Your task to perform on an android device: check out phone information Image 0: 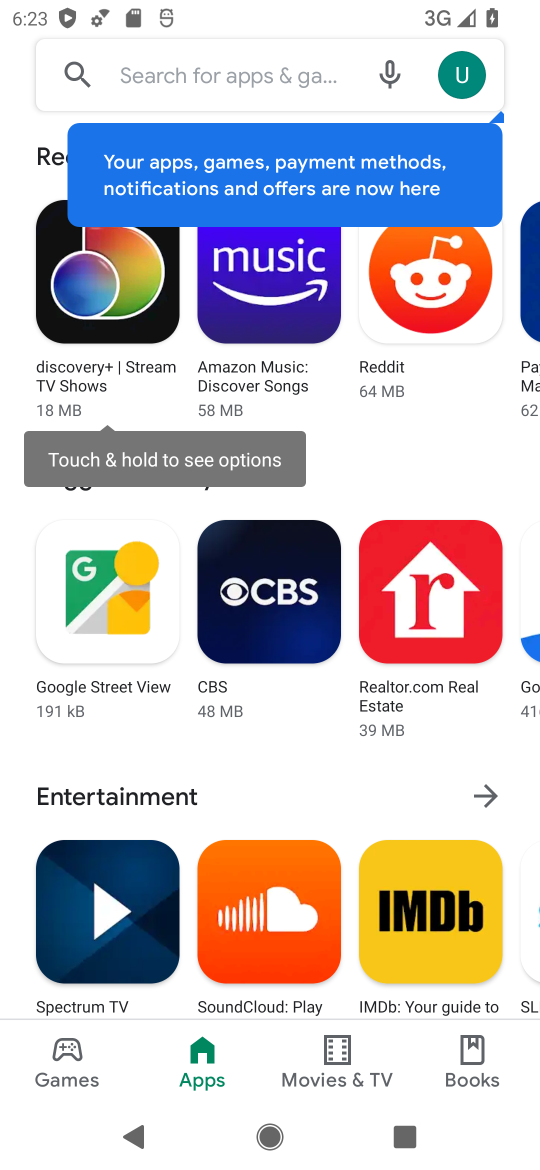
Step 0: press home button
Your task to perform on an android device: check out phone information Image 1: 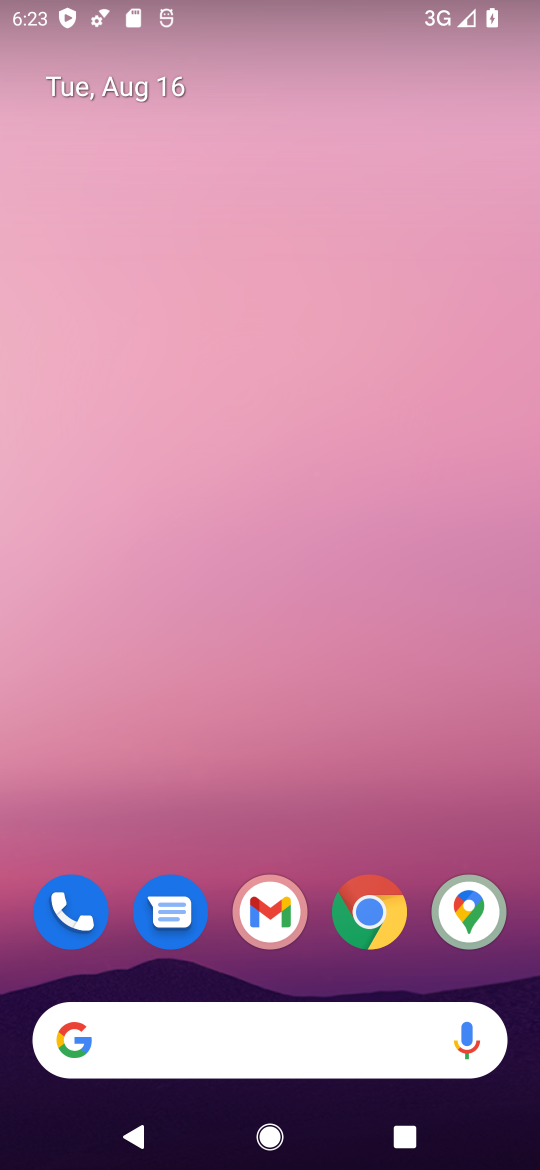
Step 1: drag from (421, 971) to (382, 132)
Your task to perform on an android device: check out phone information Image 2: 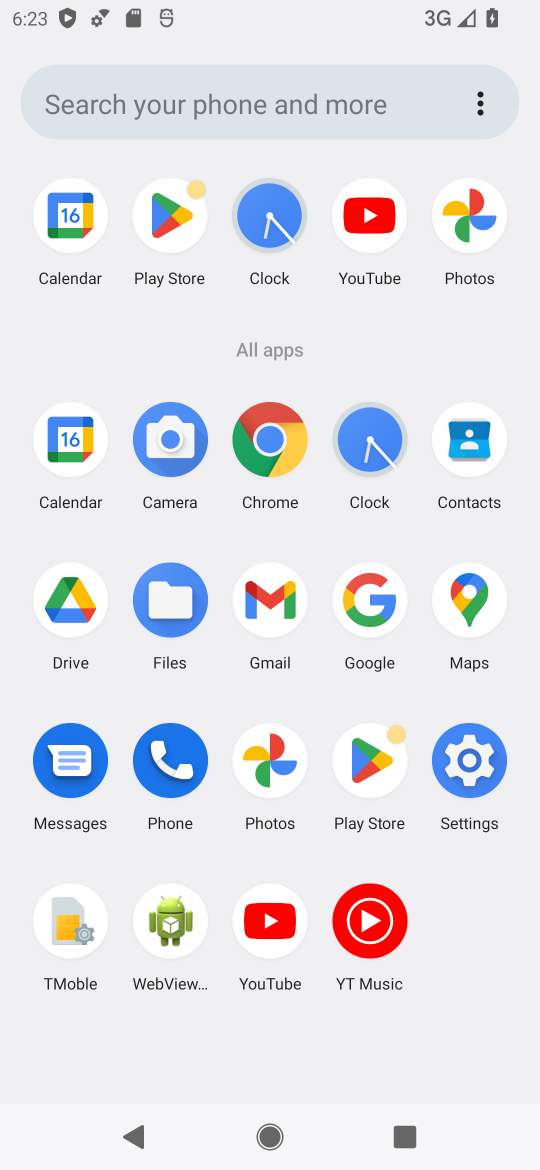
Step 2: click (467, 761)
Your task to perform on an android device: check out phone information Image 3: 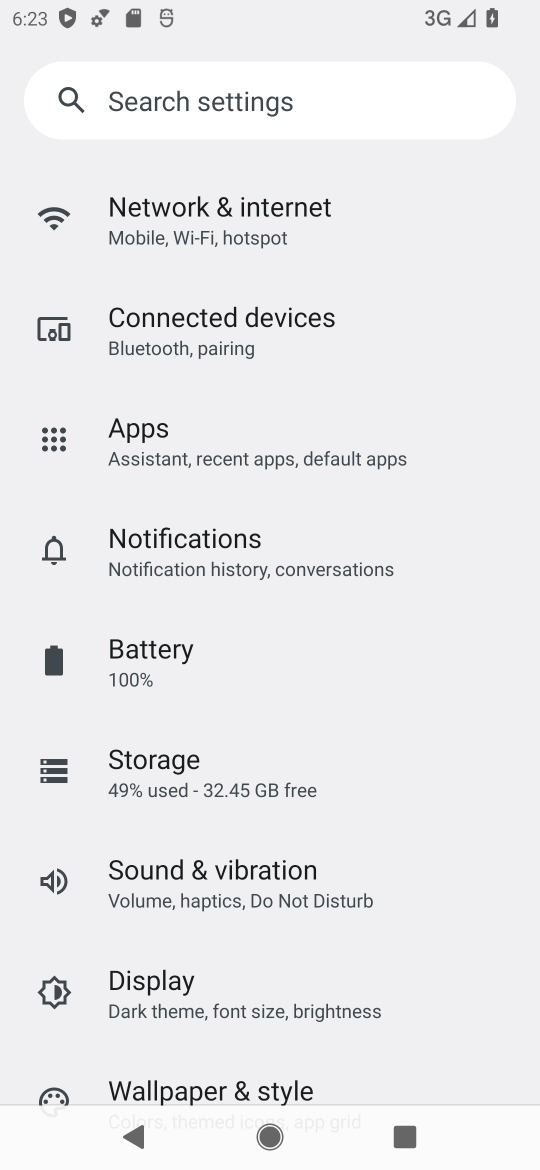
Step 3: drag from (398, 436) to (428, 694)
Your task to perform on an android device: check out phone information Image 4: 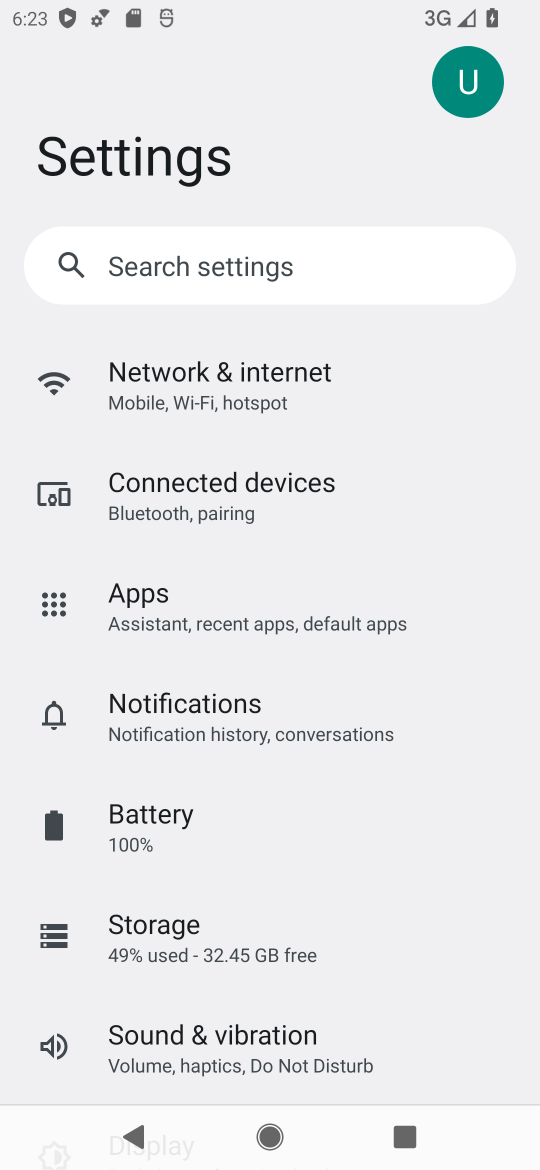
Step 4: drag from (424, 934) to (392, 326)
Your task to perform on an android device: check out phone information Image 5: 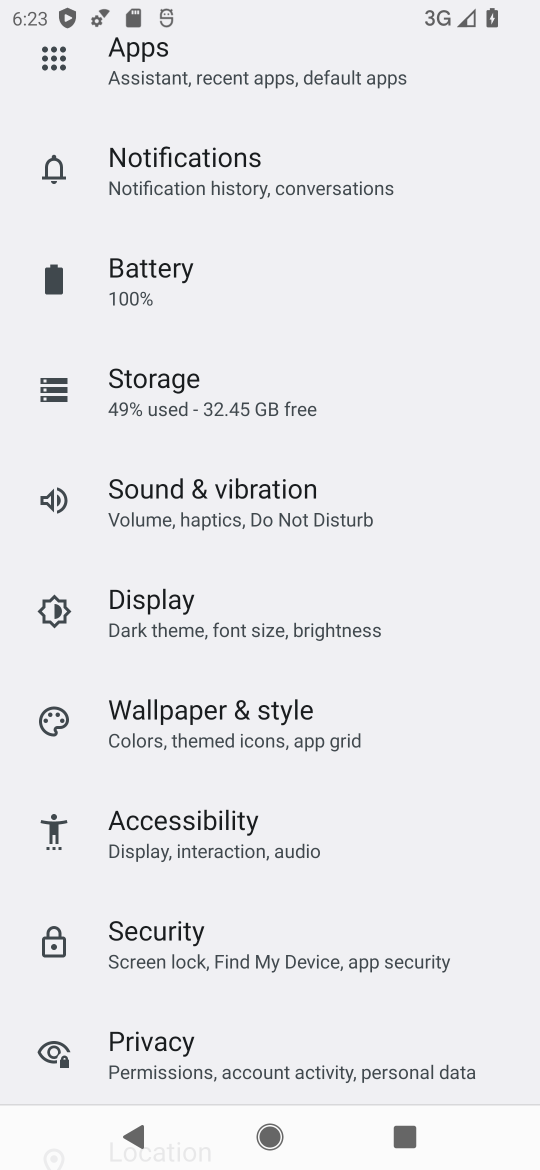
Step 5: drag from (411, 911) to (417, 285)
Your task to perform on an android device: check out phone information Image 6: 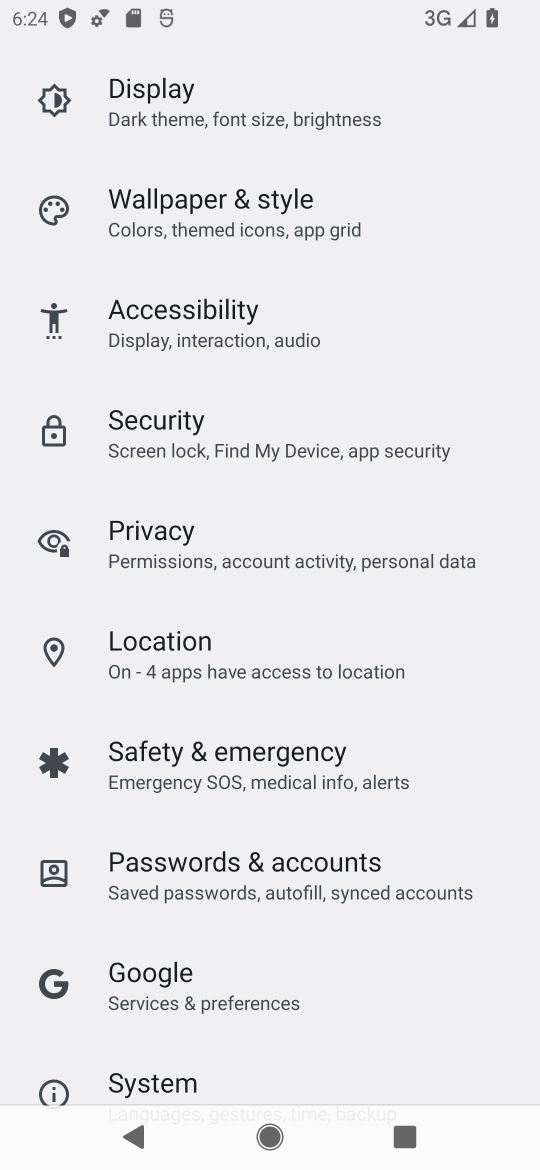
Step 6: drag from (457, 895) to (430, 431)
Your task to perform on an android device: check out phone information Image 7: 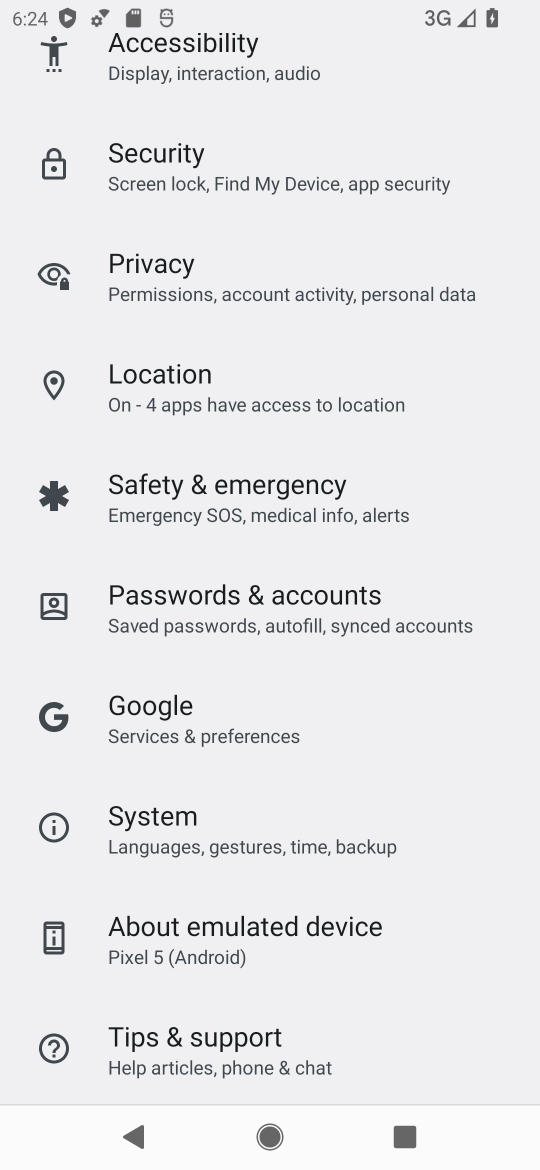
Step 7: drag from (418, 1019) to (372, 500)
Your task to perform on an android device: check out phone information Image 8: 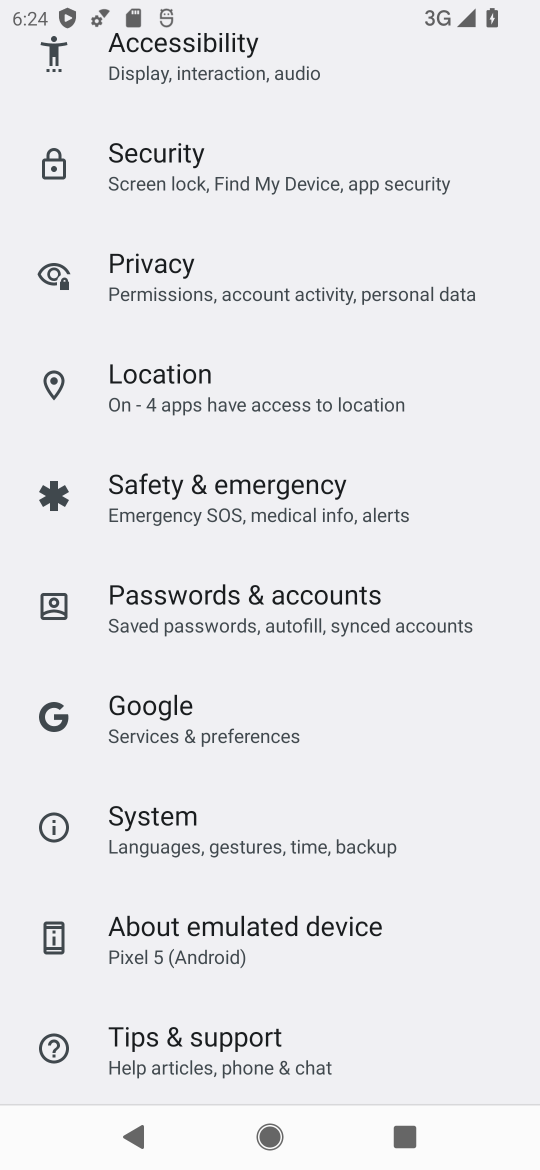
Step 8: drag from (414, 1021) to (419, 359)
Your task to perform on an android device: check out phone information Image 9: 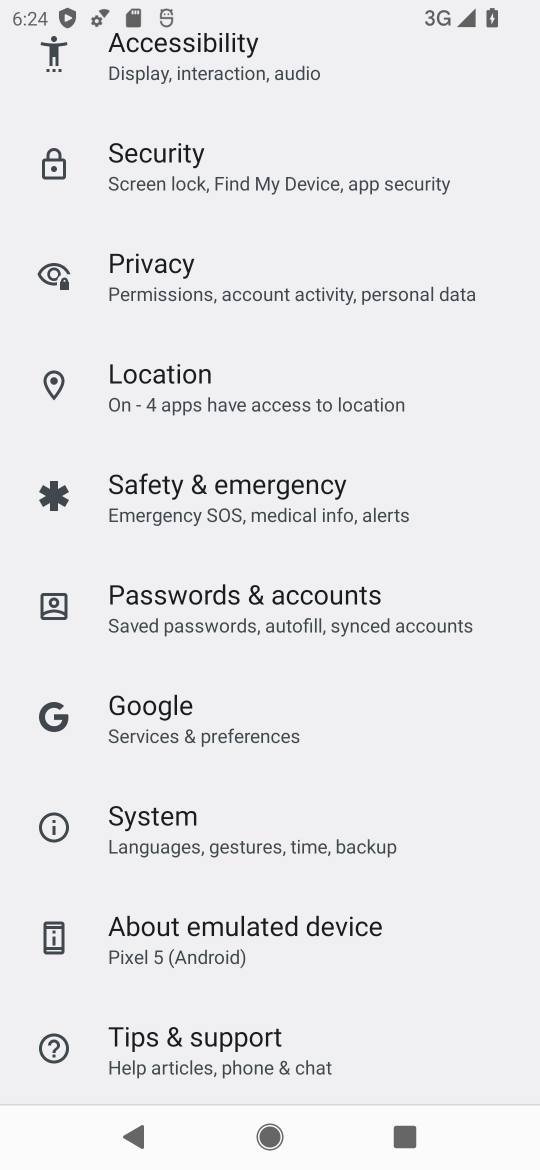
Step 9: click (199, 931)
Your task to perform on an android device: check out phone information Image 10: 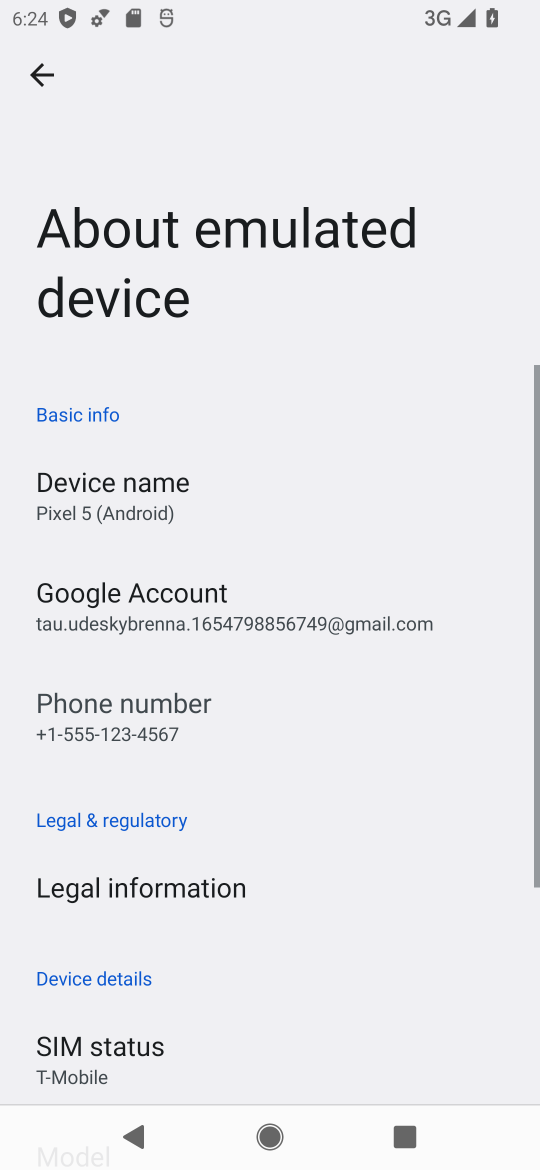
Step 10: task complete